Your task to perform on an android device: Open Google Maps and go to "Timeline" Image 0: 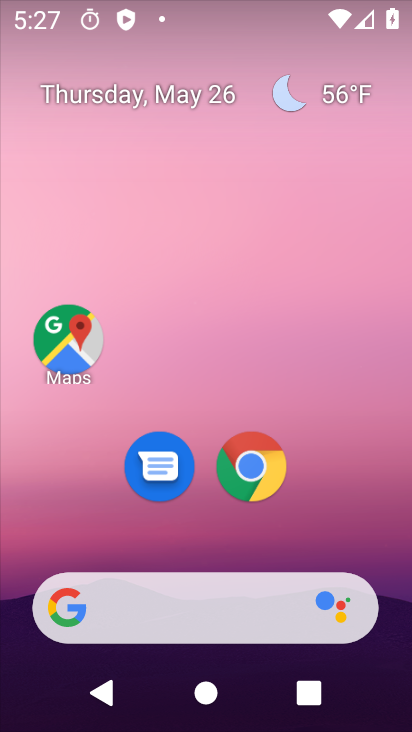
Step 0: drag from (288, 525) to (321, 102)
Your task to perform on an android device: Open Google Maps and go to "Timeline" Image 1: 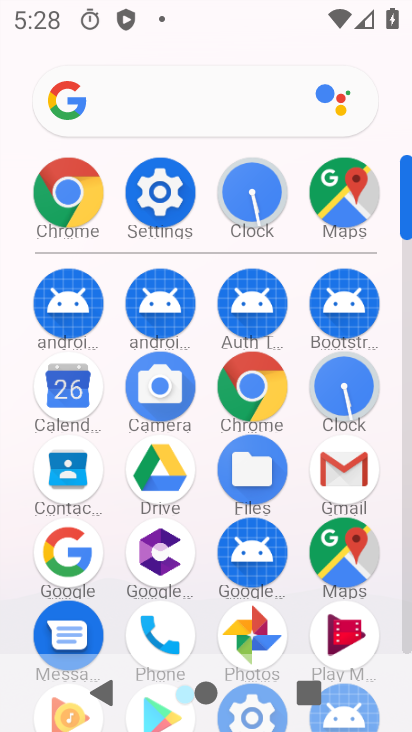
Step 1: click (357, 187)
Your task to perform on an android device: Open Google Maps and go to "Timeline" Image 2: 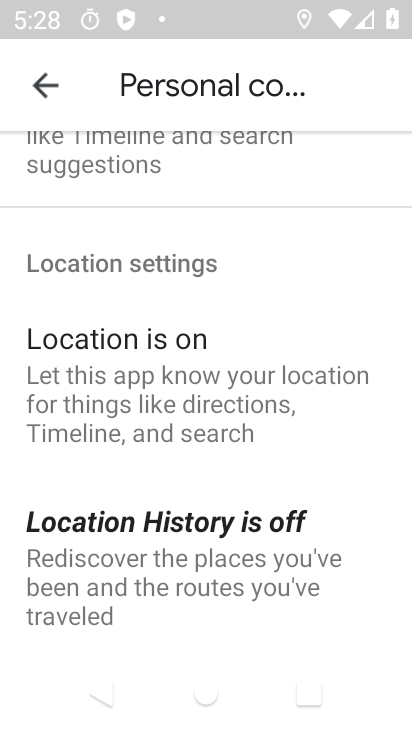
Step 2: click (49, 90)
Your task to perform on an android device: Open Google Maps and go to "Timeline" Image 3: 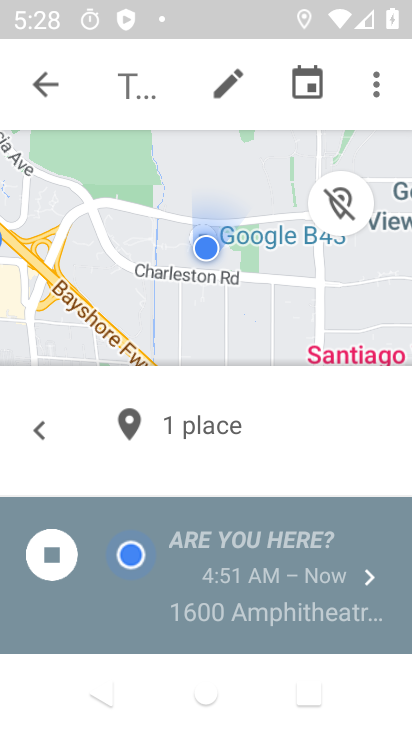
Step 3: click (39, 71)
Your task to perform on an android device: Open Google Maps and go to "Timeline" Image 4: 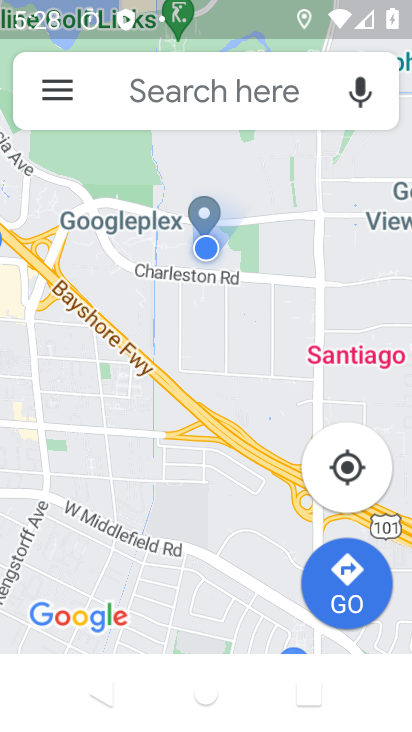
Step 4: click (48, 84)
Your task to perform on an android device: Open Google Maps and go to "Timeline" Image 5: 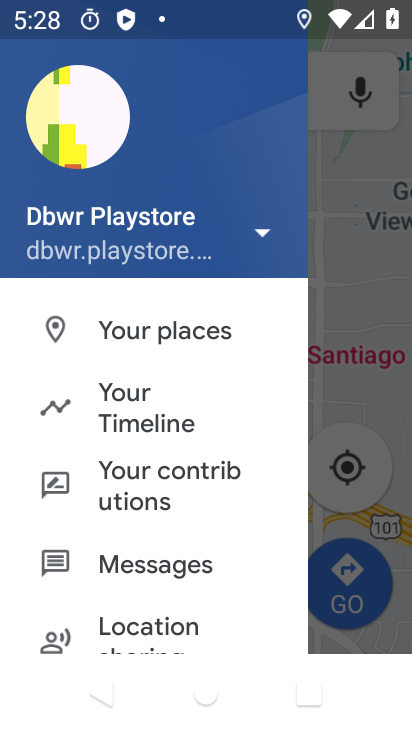
Step 5: click (145, 411)
Your task to perform on an android device: Open Google Maps and go to "Timeline" Image 6: 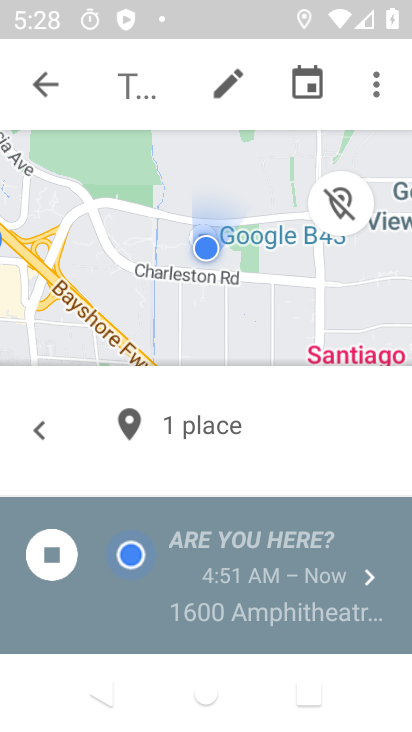
Step 6: task complete